Your task to perform on an android device: Open the web browser Image 0: 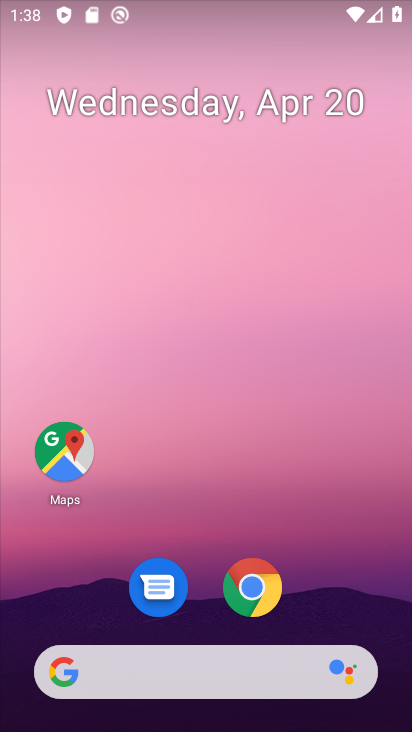
Step 0: drag from (359, 539) to (310, 208)
Your task to perform on an android device: Open the web browser Image 1: 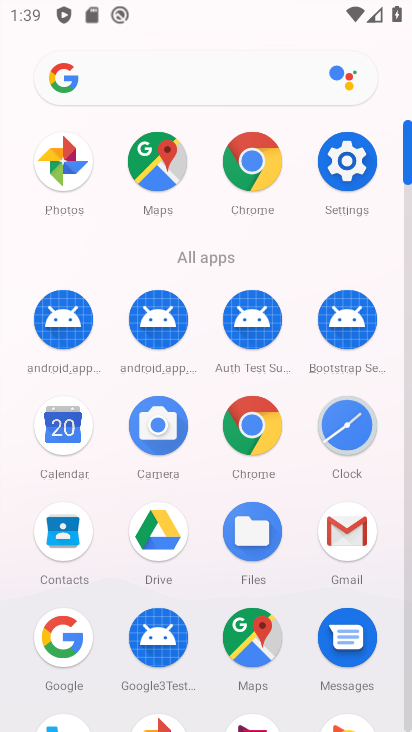
Step 1: click (268, 174)
Your task to perform on an android device: Open the web browser Image 2: 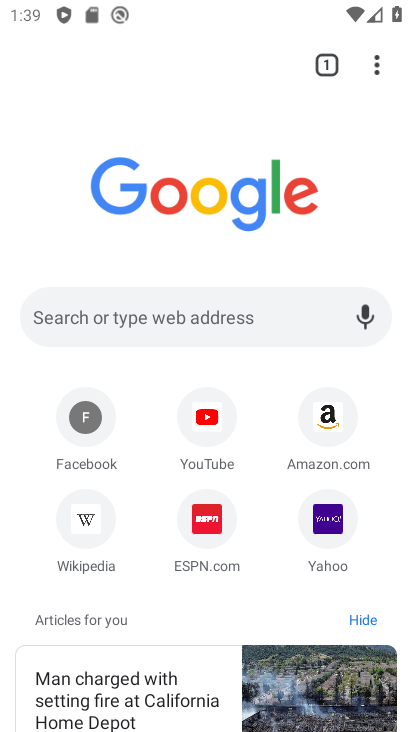
Step 2: task complete